Your task to perform on an android device: Open Reddit.com Image 0: 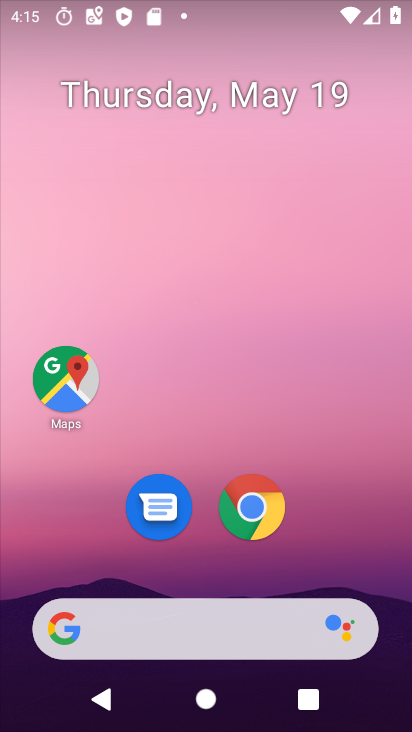
Step 0: click (271, 518)
Your task to perform on an android device: Open Reddit.com Image 1: 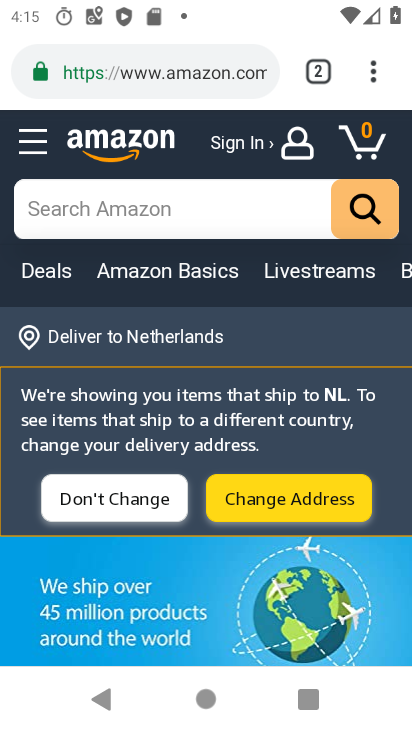
Step 1: click (269, 72)
Your task to perform on an android device: Open Reddit.com Image 2: 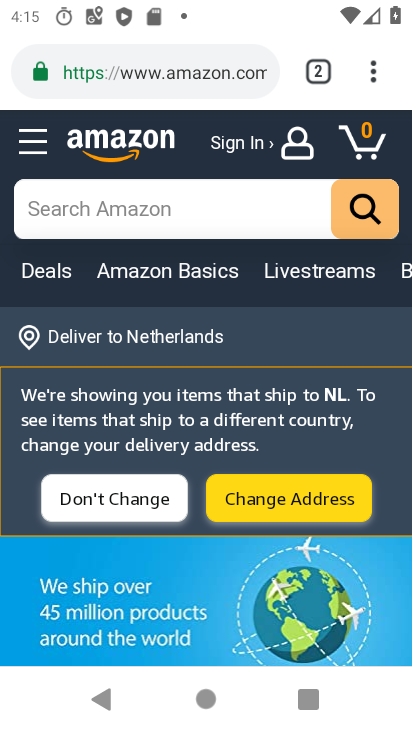
Step 2: click (268, 61)
Your task to perform on an android device: Open Reddit.com Image 3: 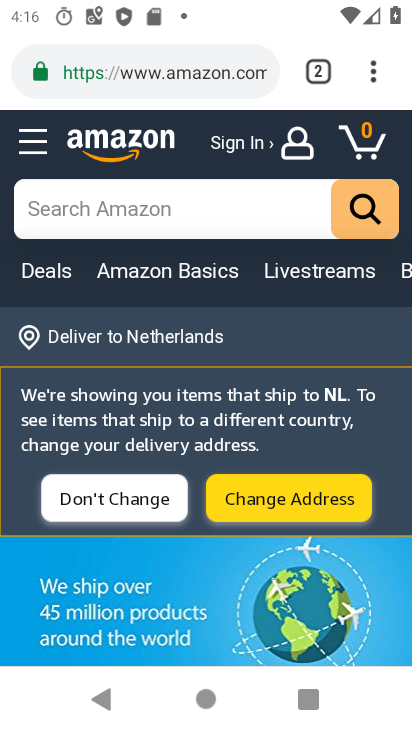
Step 3: click (275, 66)
Your task to perform on an android device: Open Reddit.com Image 4: 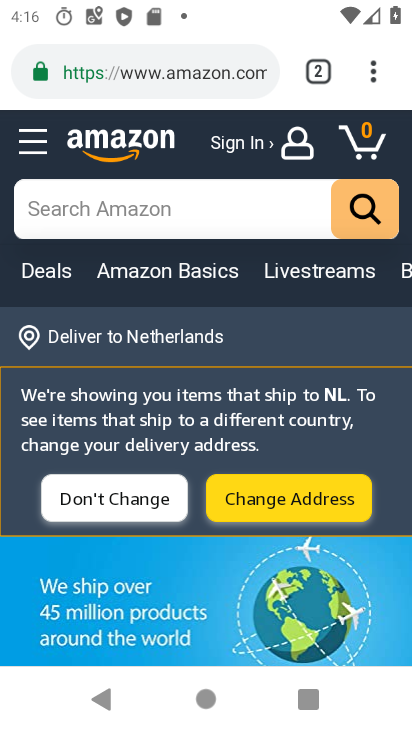
Step 4: click (264, 67)
Your task to perform on an android device: Open Reddit.com Image 5: 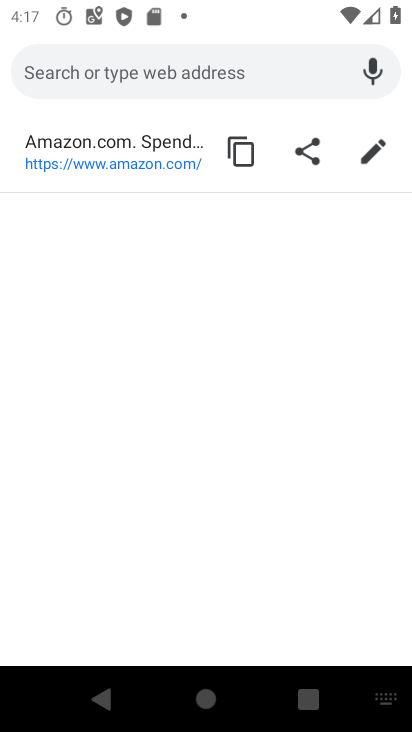
Step 5: type "Reddit.com"
Your task to perform on an android device: Open Reddit.com Image 6: 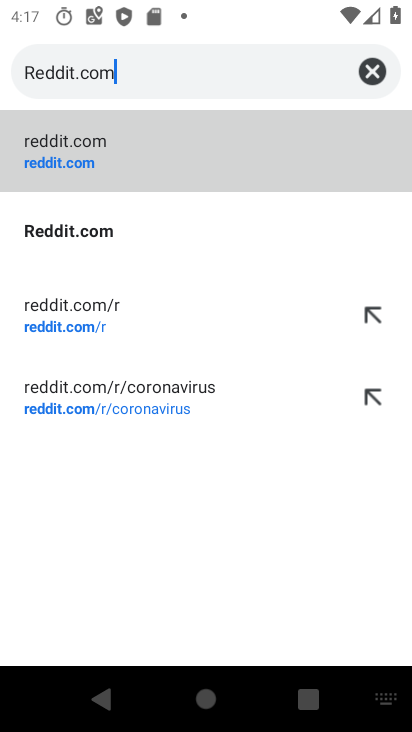
Step 6: click (76, 218)
Your task to perform on an android device: Open Reddit.com Image 7: 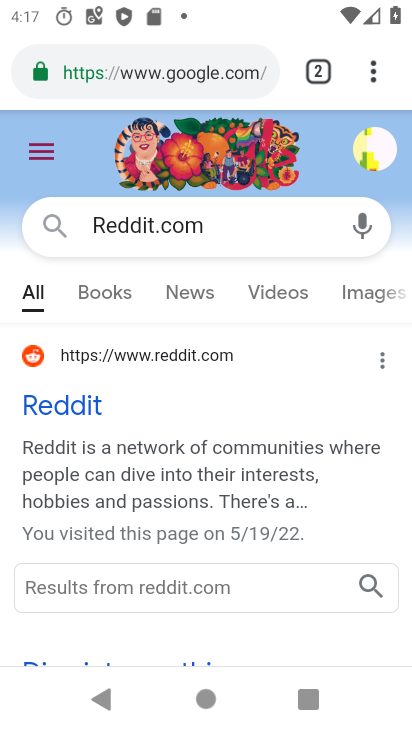
Step 7: task complete